Your task to perform on an android device: open sync settings in chrome Image 0: 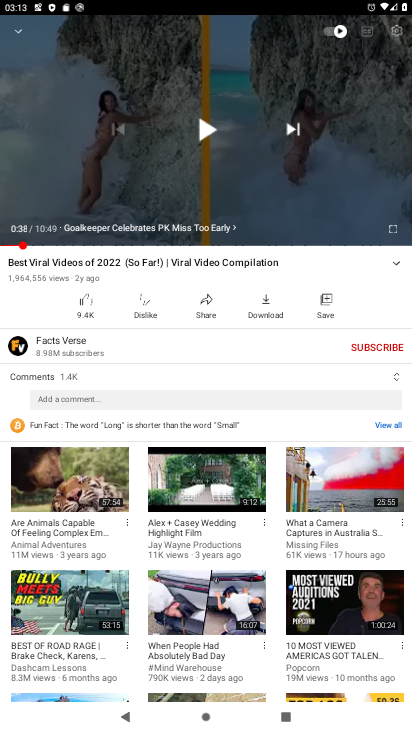
Step 0: press home button
Your task to perform on an android device: open sync settings in chrome Image 1: 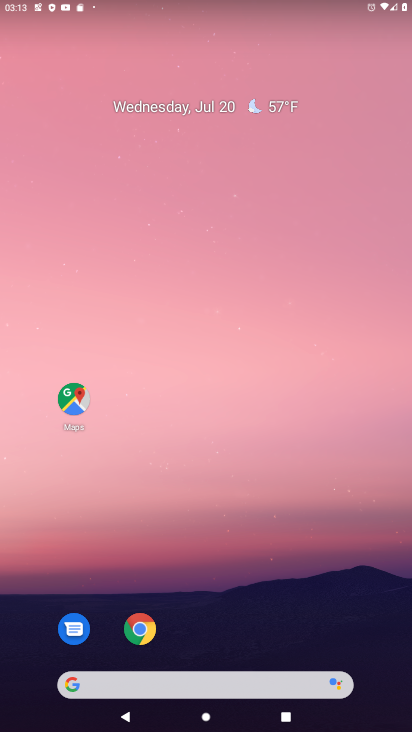
Step 1: click (141, 632)
Your task to perform on an android device: open sync settings in chrome Image 2: 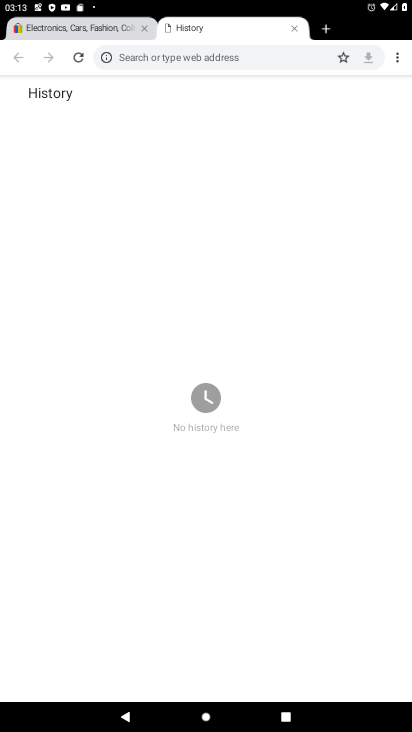
Step 2: click (397, 61)
Your task to perform on an android device: open sync settings in chrome Image 3: 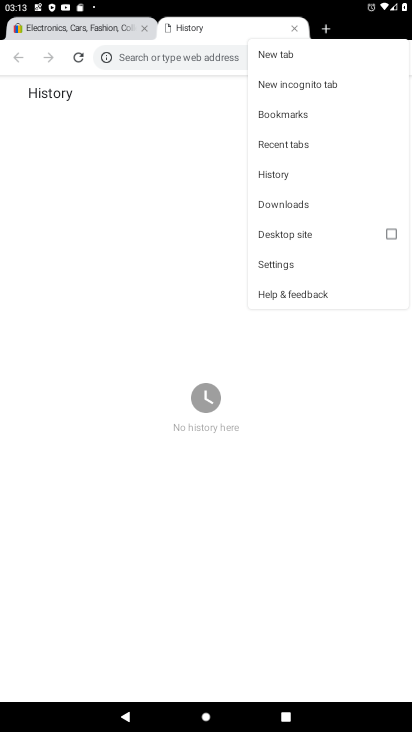
Step 3: click (294, 263)
Your task to perform on an android device: open sync settings in chrome Image 4: 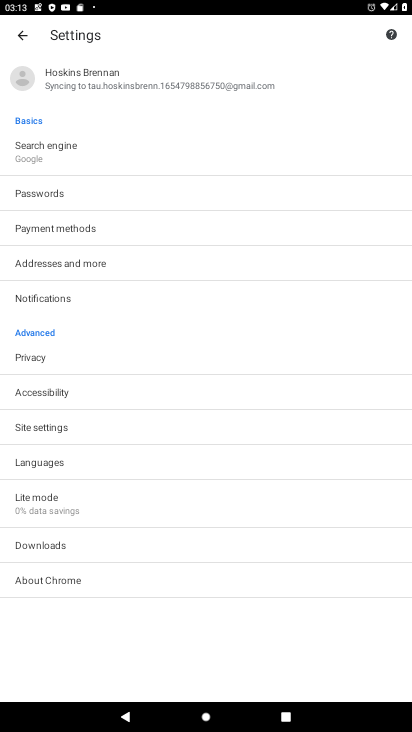
Step 4: click (85, 86)
Your task to perform on an android device: open sync settings in chrome Image 5: 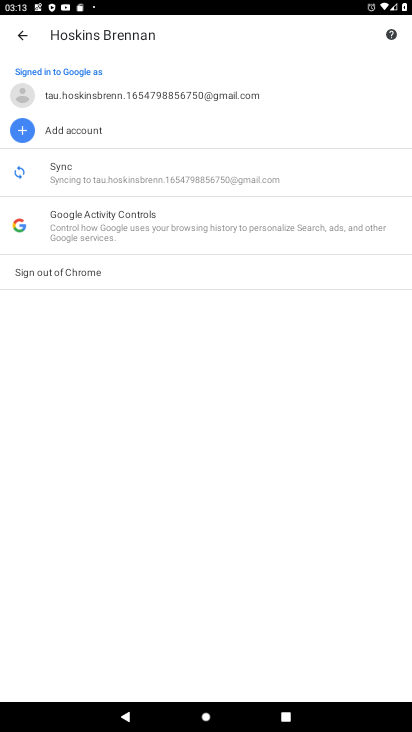
Step 5: click (62, 180)
Your task to perform on an android device: open sync settings in chrome Image 6: 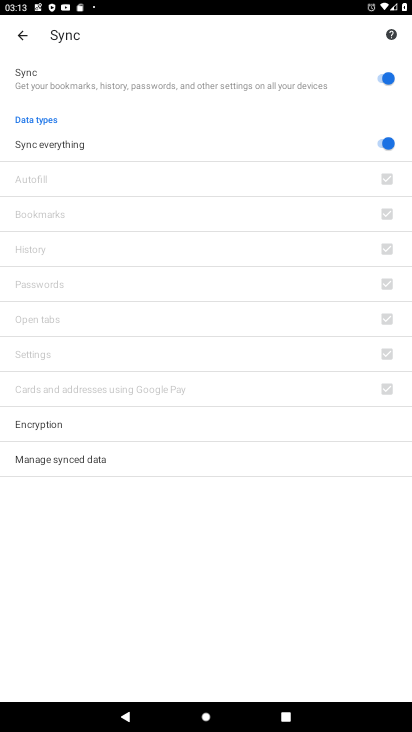
Step 6: task complete